Your task to perform on an android device: change notification settings in the gmail app Image 0: 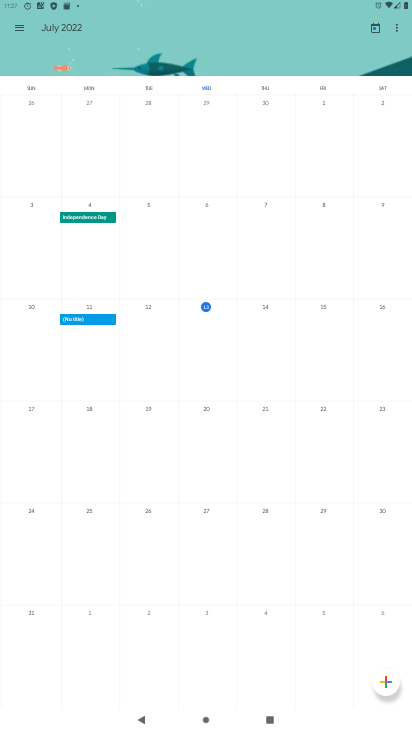
Step 0: press home button
Your task to perform on an android device: change notification settings in the gmail app Image 1: 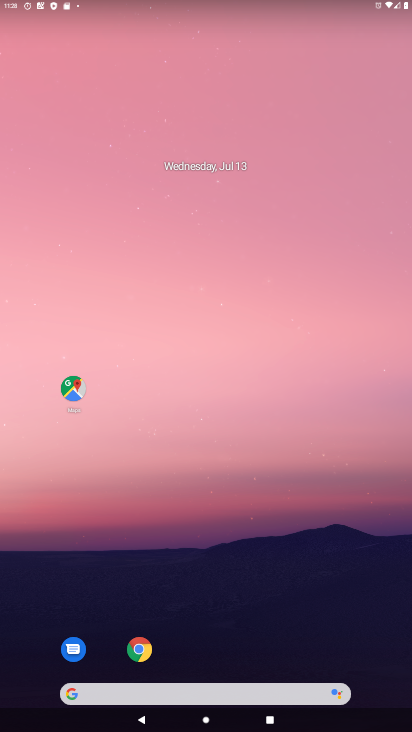
Step 1: drag from (191, 693) to (205, 353)
Your task to perform on an android device: change notification settings in the gmail app Image 2: 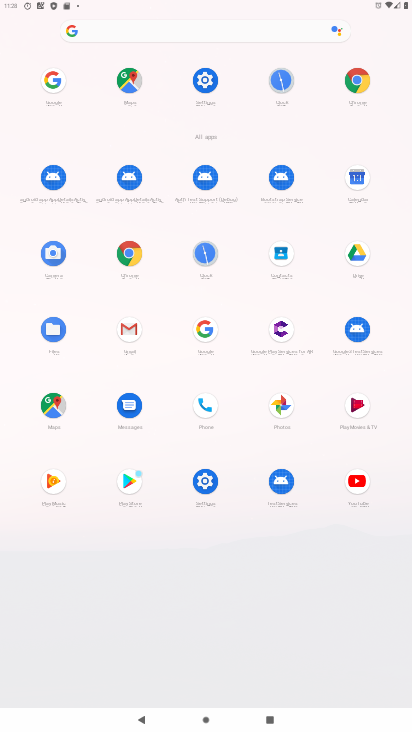
Step 2: click (129, 329)
Your task to perform on an android device: change notification settings in the gmail app Image 3: 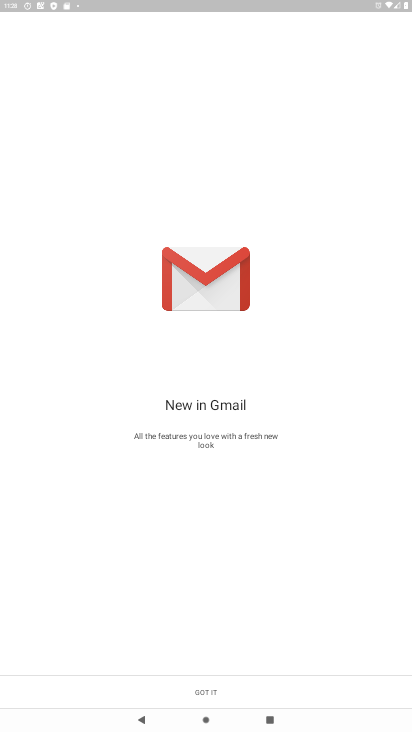
Step 3: click (199, 688)
Your task to perform on an android device: change notification settings in the gmail app Image 4: 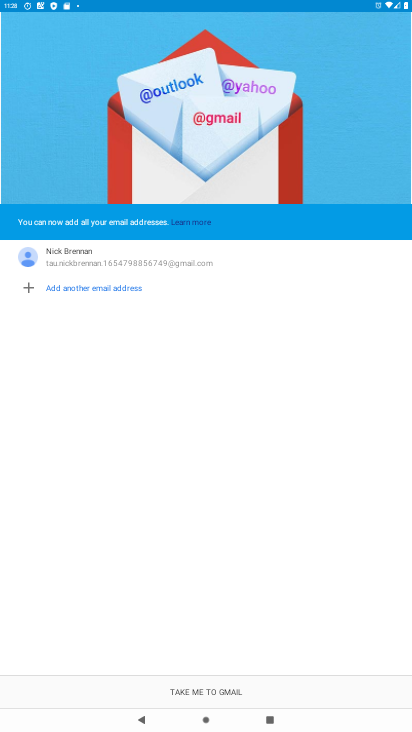
Step 4: click (199, 688)
Your task to perform on an android device: change notification settings in the gmail app Image 5: 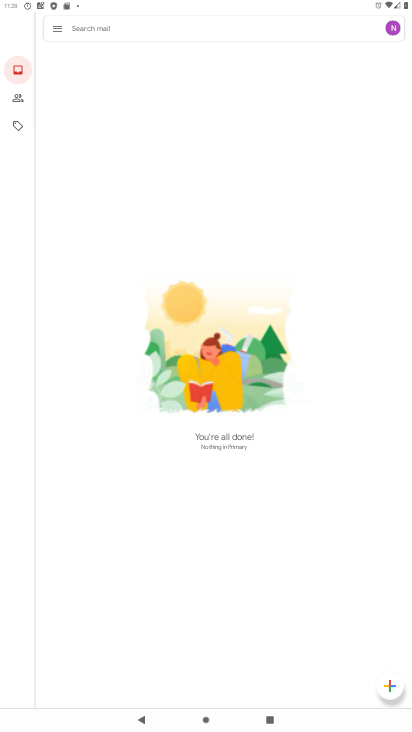
Step 5: click (54, 27)
Your task to perform on an android device: change notification settings in the gmail app Image 6: 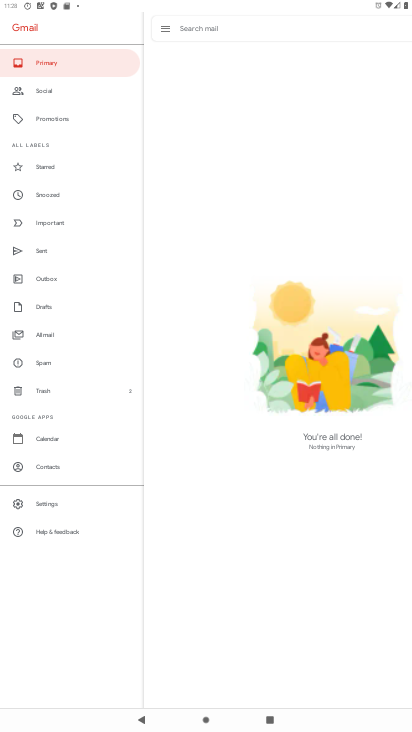
Step 6: click (46, 507)
Your task to perform on an android device: change notification settings in the gmail app Image 7: 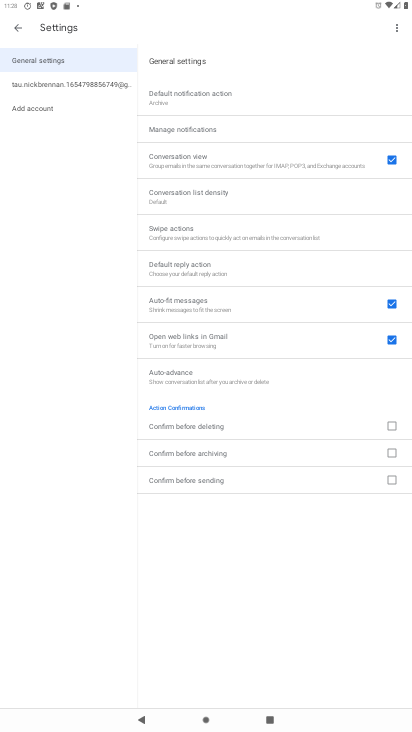
Step 7: click (155, 134)
Your task to perform on an android device: change notification settings in the gmail app Image 8: 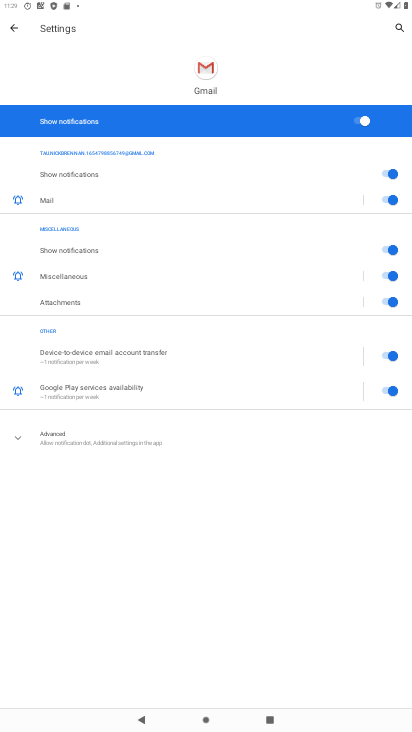
Step 8: click (359, 125)
Your task to perform on an android device: change notification settings in the gmail app Image 9: 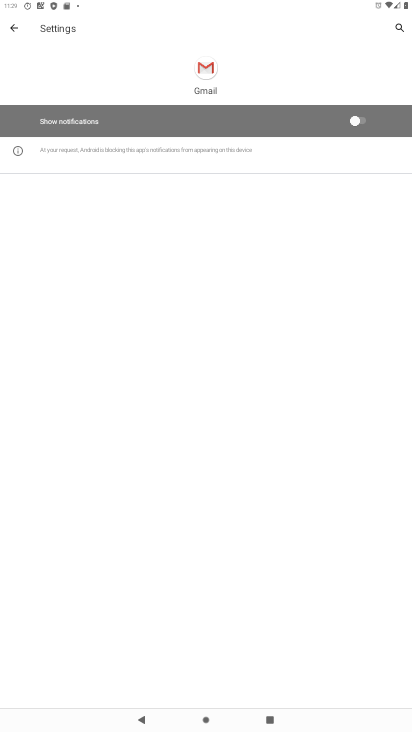
Step 9: task complete